Your task to perform on an android device: How much does a 2 bedroom apartment rent for in Atlanta? Image 0: 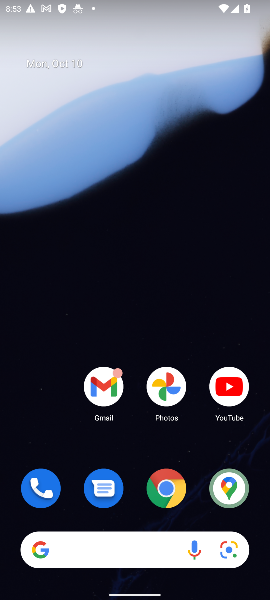
Step 0: drag from (142, 461) to (172, 42)
Your task to perform on an android device: How much does a 2 bedroom apartment rent for in Atlanta? Image 1: 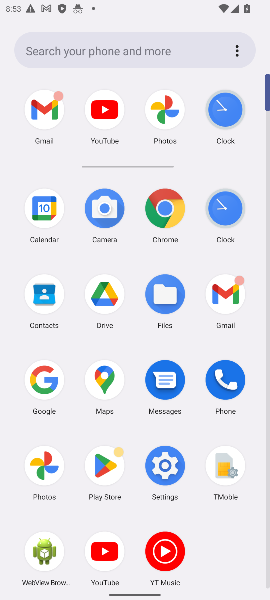
Step 1: click (165, 210)
Your task to perform on an android device: How much does a 2 bedroom apartment rent for in Atlanta? Image 2: 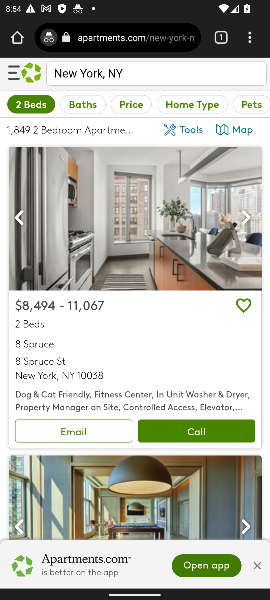
Step 2: press back button
Your task to perform on an android device: How much does a 2 bedroom apartment rent for in Atlanta? Image 3: 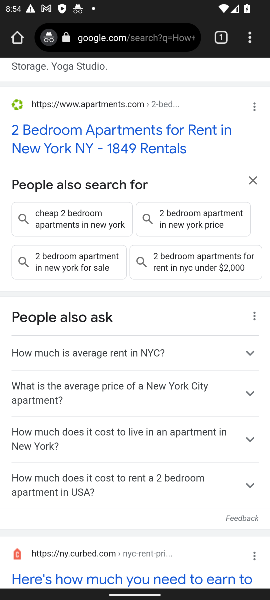
Step 3: drag from (205, 140) to (194, 531)
Your task to perform on an android device: How much does a 2 bedroom apartment rent for in Atlanta? Image 4: 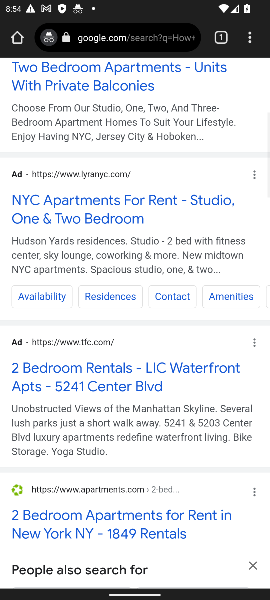
Step 4: drag from (197, 127) to (216, 495)
Your task to perform on an android device: How much does a 2 bedroom apartment rent for in Atlanta? Image 5: 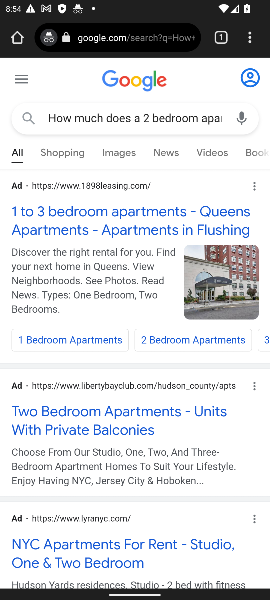
Step 5: click (176, 43)
Your task to perform on an android device: How much does a 2 bedroom apartment rent for in Atlanta? Image 6: 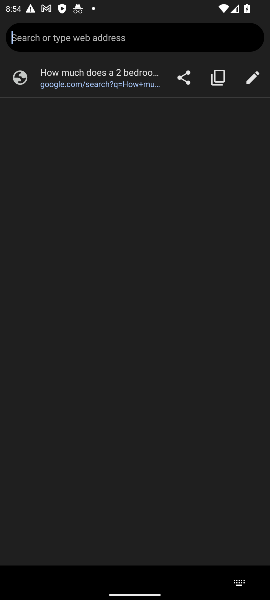
Step 6: type "How much does a 2 bedroom apartment rent f"
Your task to perform on an android device: How much does a 2 bedroom apartment rent for in Atlanta? Image 7: 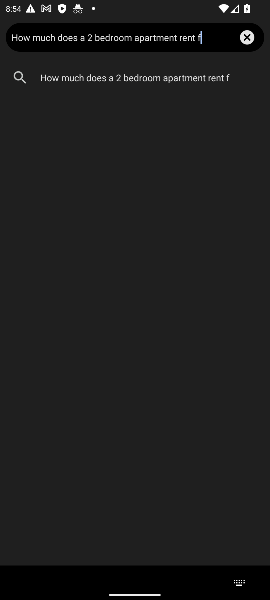
Step 7: type "or in Atlanta?"
Your task to perform on an android device: How much does a 2 bedroom apartment rent for in Atlanta? Image 8: 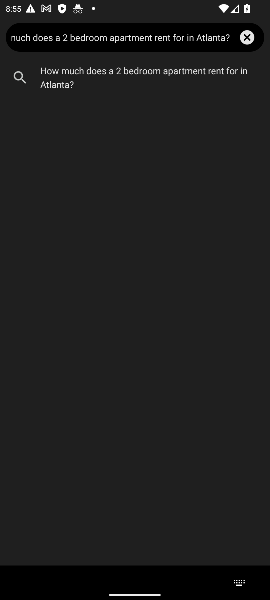
Step 8: press enter
Your task to perform on an android device: How much does a 2 bedroom apartment rent for in Atlanta? Image 9: 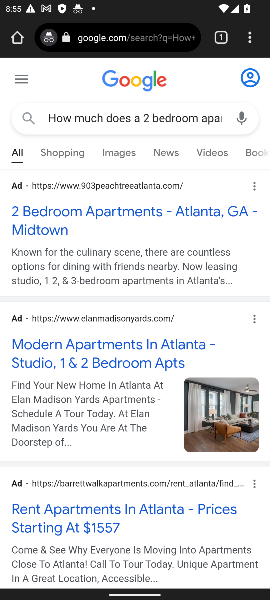
Step 9: task complete